Your task to perform on an android device: toggle sleep mode Image 0: 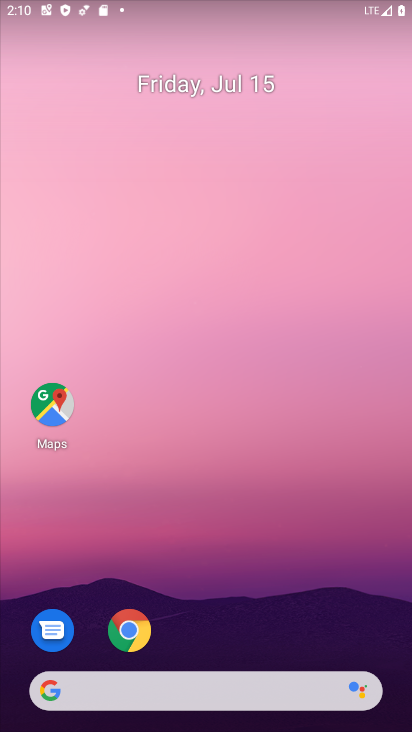
Step 0: press home button
Your task to perform on an android device: toggle sleep mode Image 1: 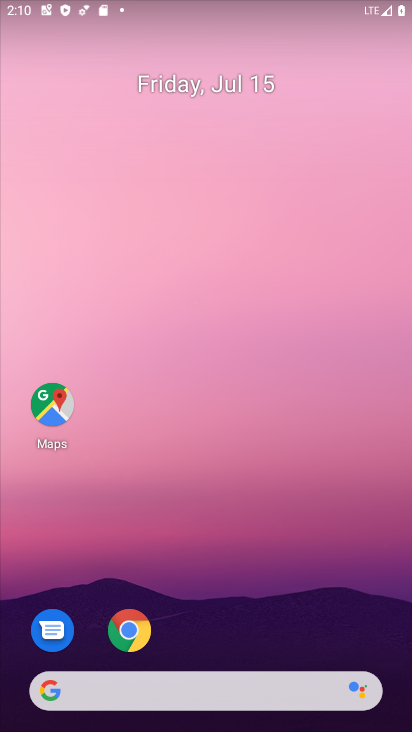
Step 1: drag from (263, 577) to (297, 44)
Your task to perform on an android device: toggle sleep mode Image 2: 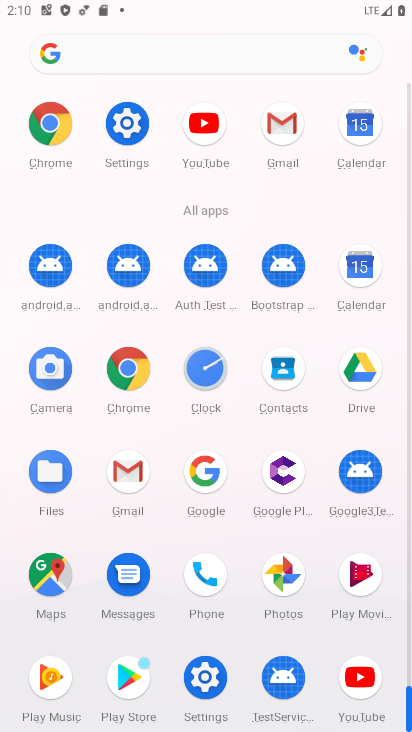
Step 2: click (144, 122)
Your task to perform on an android device: toggle sleep mode Image 3: 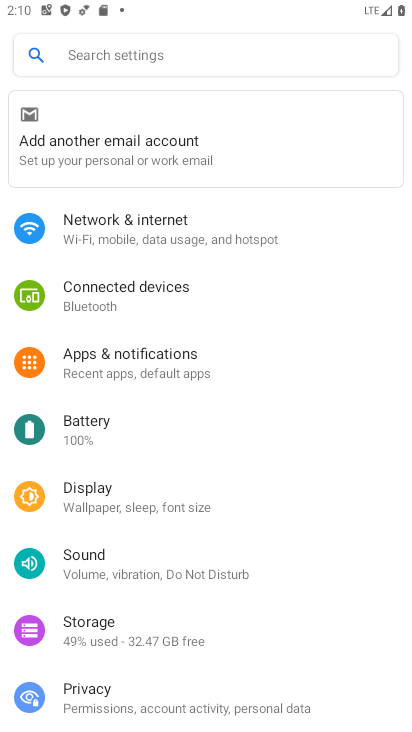
Step 3: drag from (265, 668) to (233, 381)
Your task to perform on an android device: toggle sleep mode Image 4: 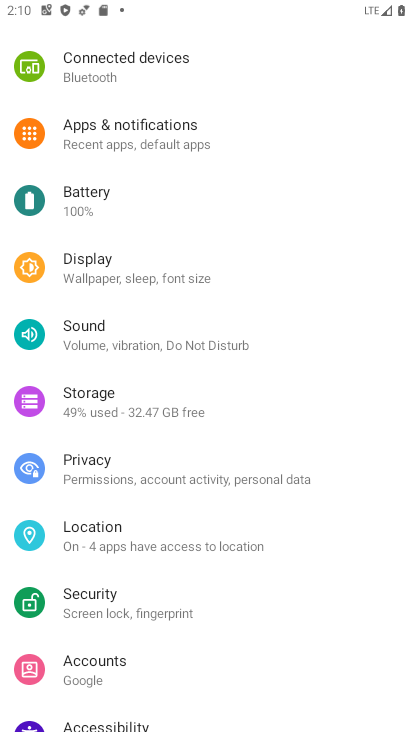
Step 4: click (135, 275)
Your task to perform on an android device: toggle sleep mode Image 5: 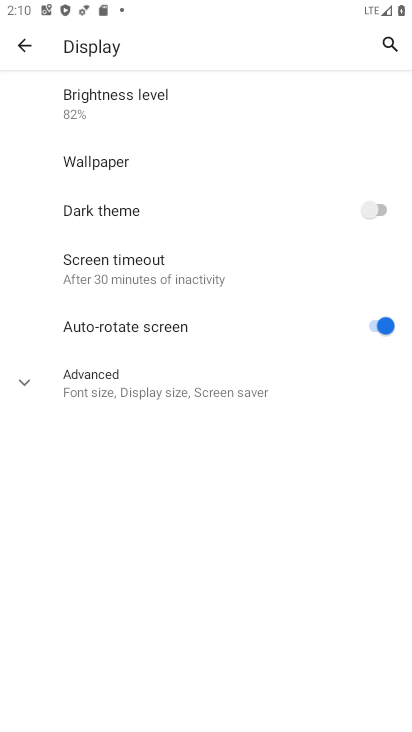
Step 5: click (35, 376)
Your task to perform on an android device: toggle sleep mode Image 6: 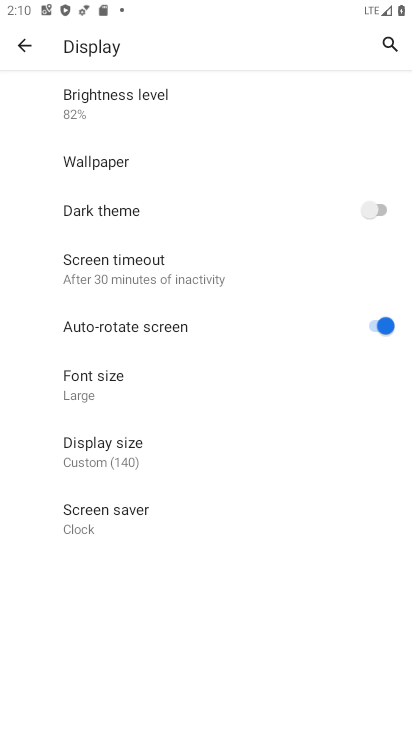
Step 6: task complete